Your task to perform on an android device: Open Amazon Image 0: 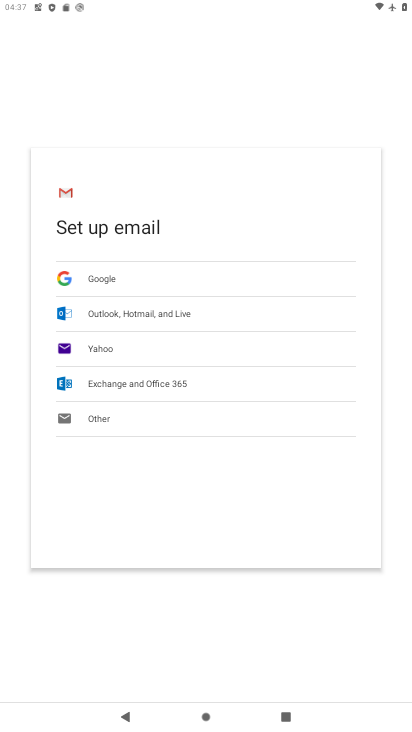
Step 0: press home button
Your task to perform on an android device: Open Amazon Image 1: 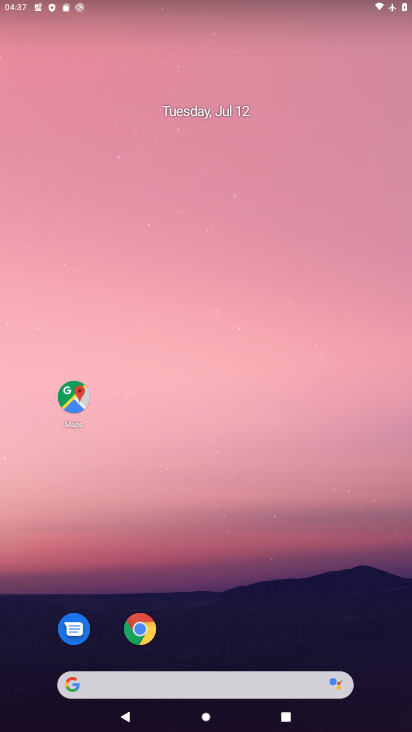
Step 1: drag from (372, 581) to (185, 36)
Your task to perform on an android device: Open Amazon Image 2: 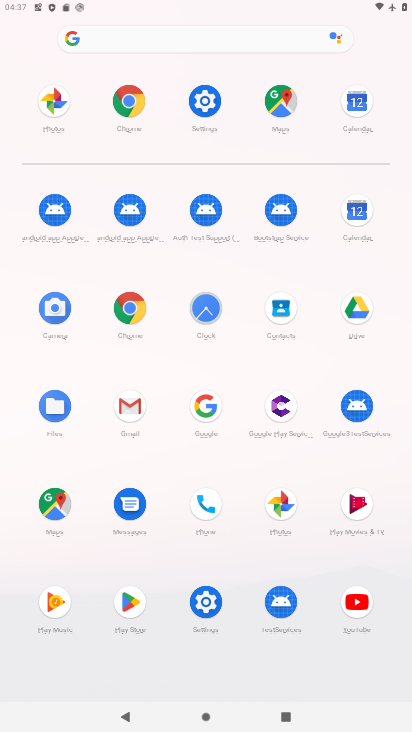
Step 2: click (131, 95)
Your task to perform on an android device: Open Amazon Image 3: 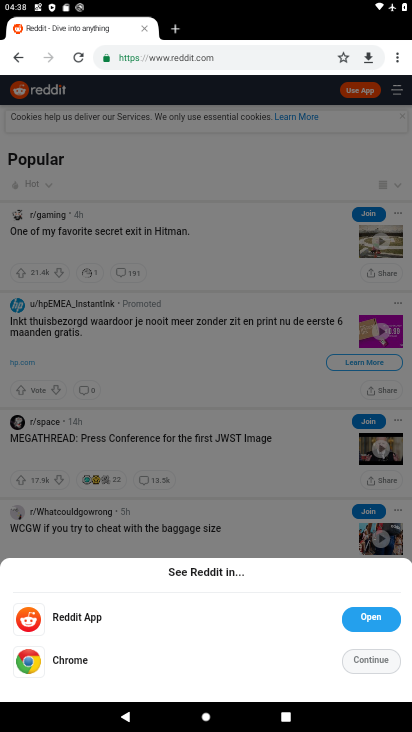
Step 3: click (239, 51)
Your task to perform on an android device: Open Amazon Image 4: 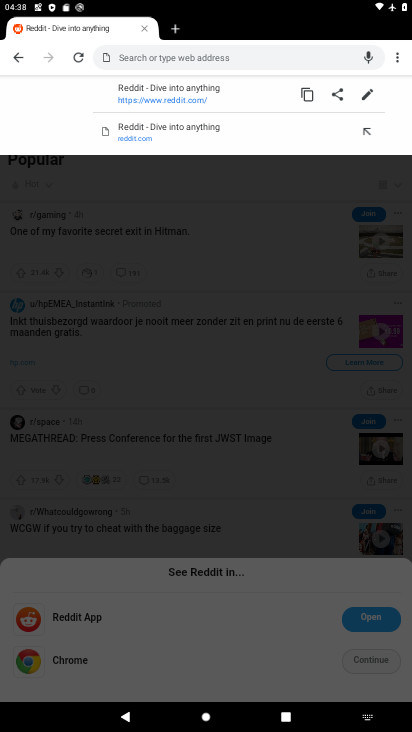
Step 4: type "amazon"
Your task to perform on an android device: Open Amazon Image 5: 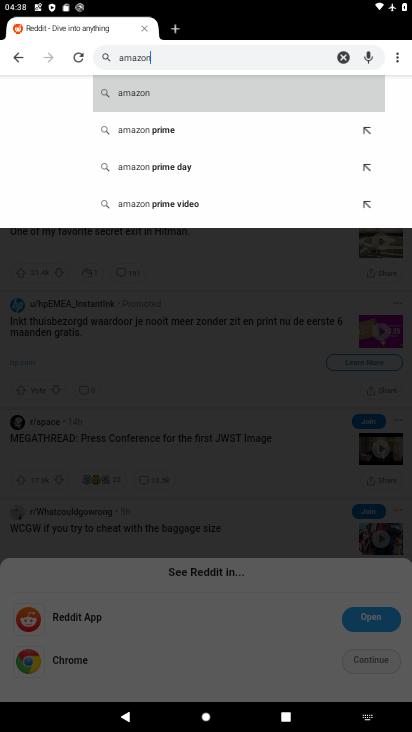
Step 5: click (141, 90)
Your task to perform on an android device: Open Amazon Image 6: 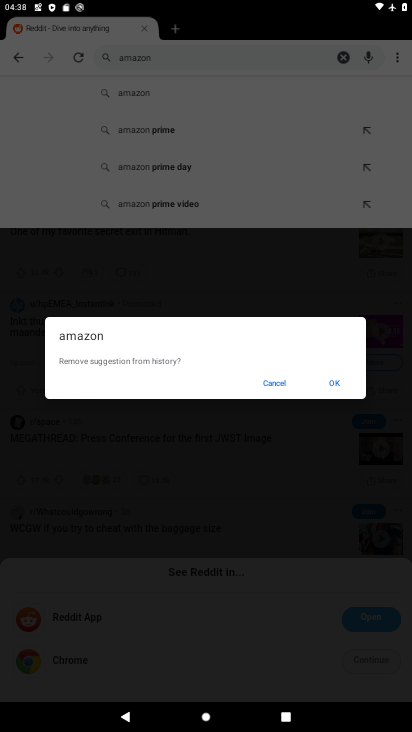
Step 6: click (274, 381)
Your task to perform on an android device: Open Amazon Image 7: 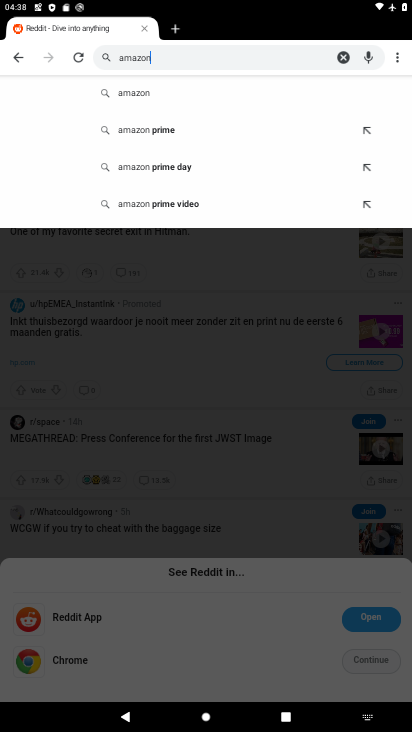
Step 7: click (133, 94)
Your task to perform on an android device: Open Amazon Image 8: 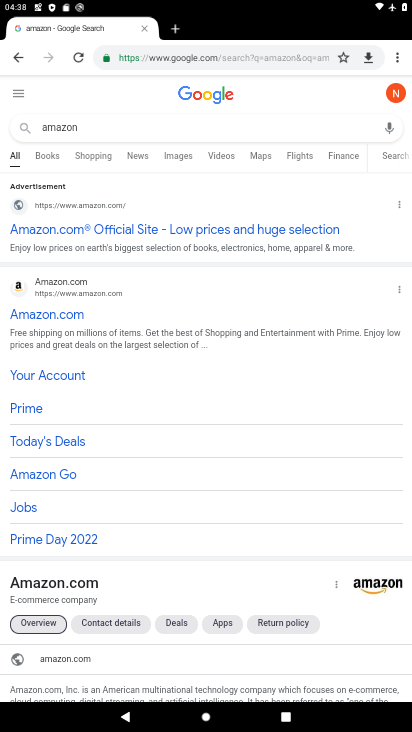
Step 8: click (47, 311)
Your task to perform on an android device: Open Amazon Image 9: 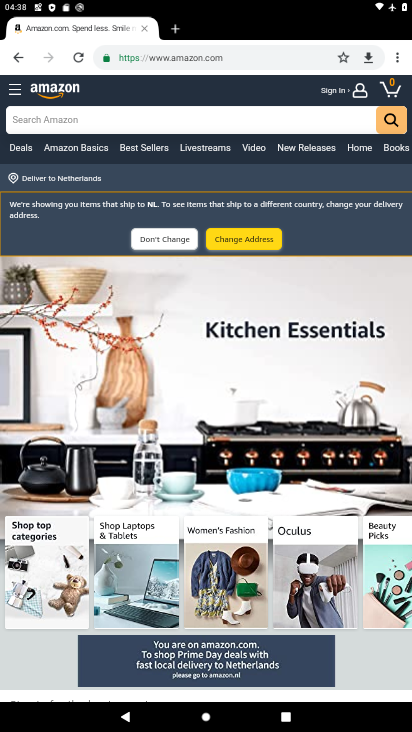
Step 9: task complete